Your task to perform on an android device: search for starred emails in the gmail app Image 0: 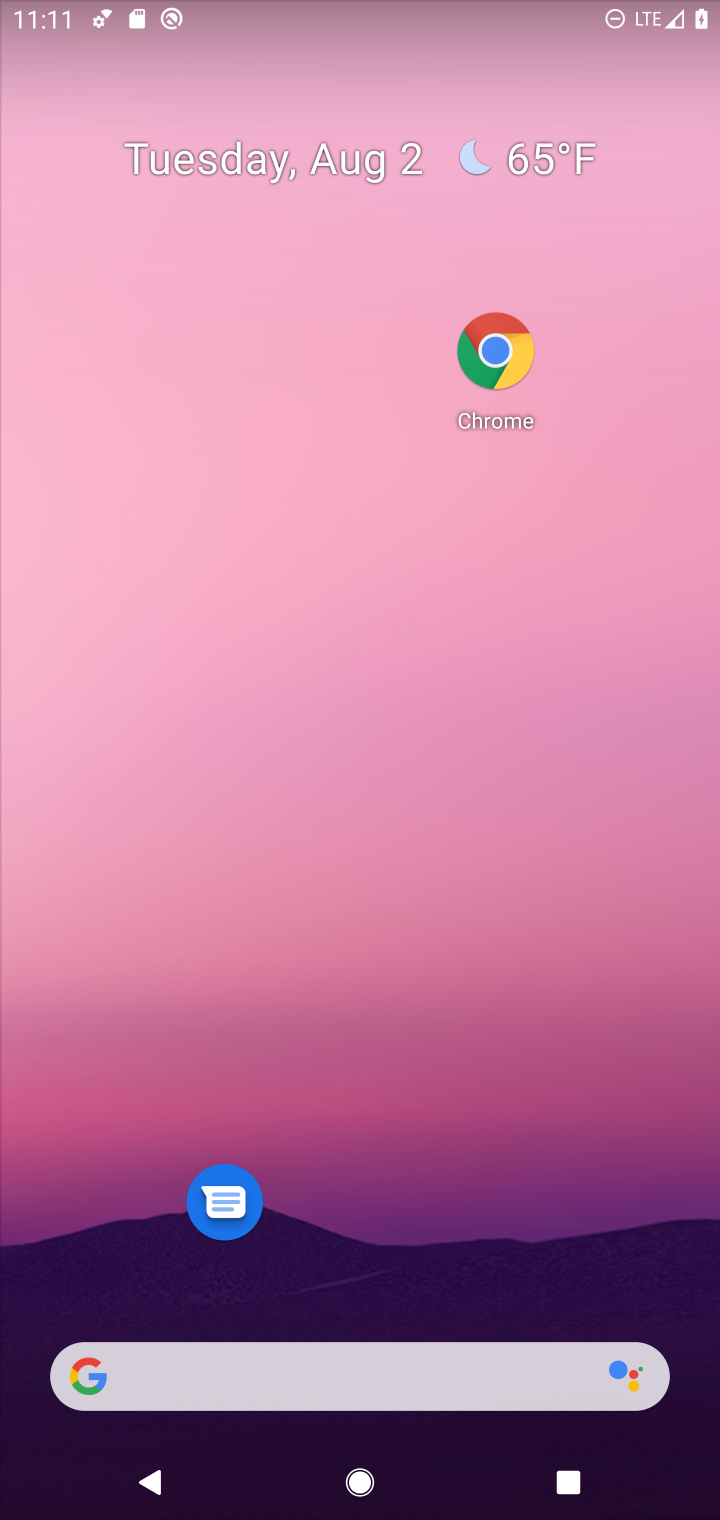
Step 0: drag from (427, 1182) to (441, 337)
Your task to perform on an android device: search for starred emails in the gmail app Image 1: 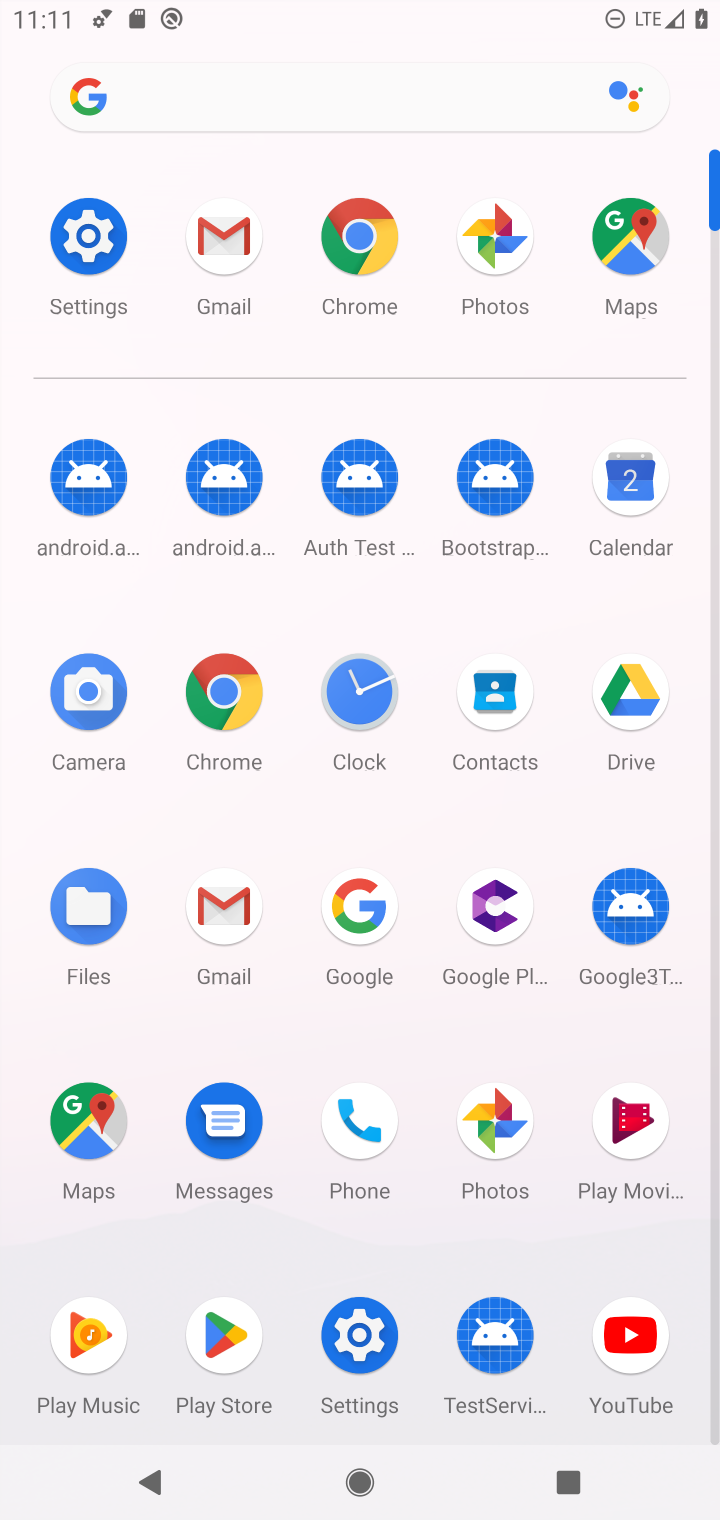
Step 1: click (218, 265)
Your task to perform on an android device: search for starred emails in the gmail app Image 2: 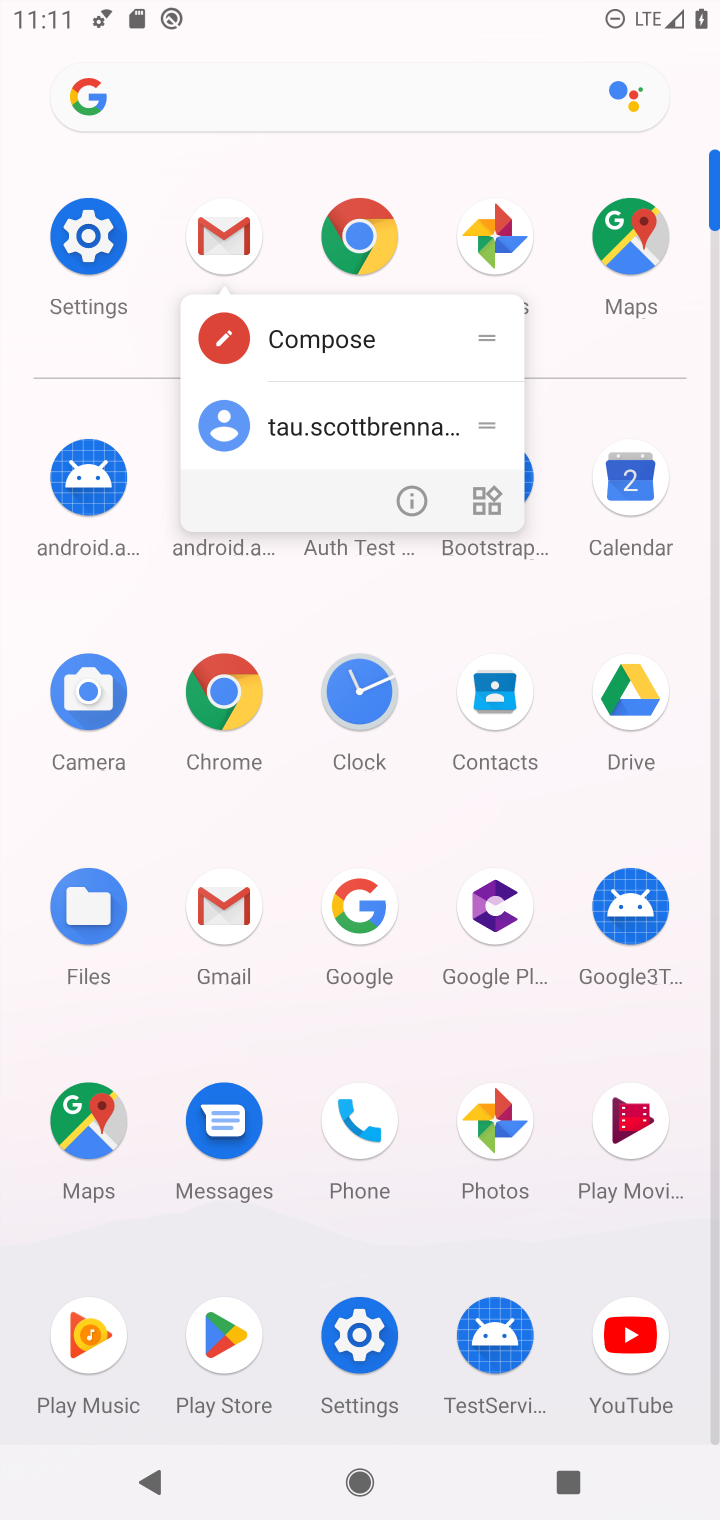
Step 2: click (226, 233)
Your task to perform on an android device: search for starred emails in the gmail app Image 3: 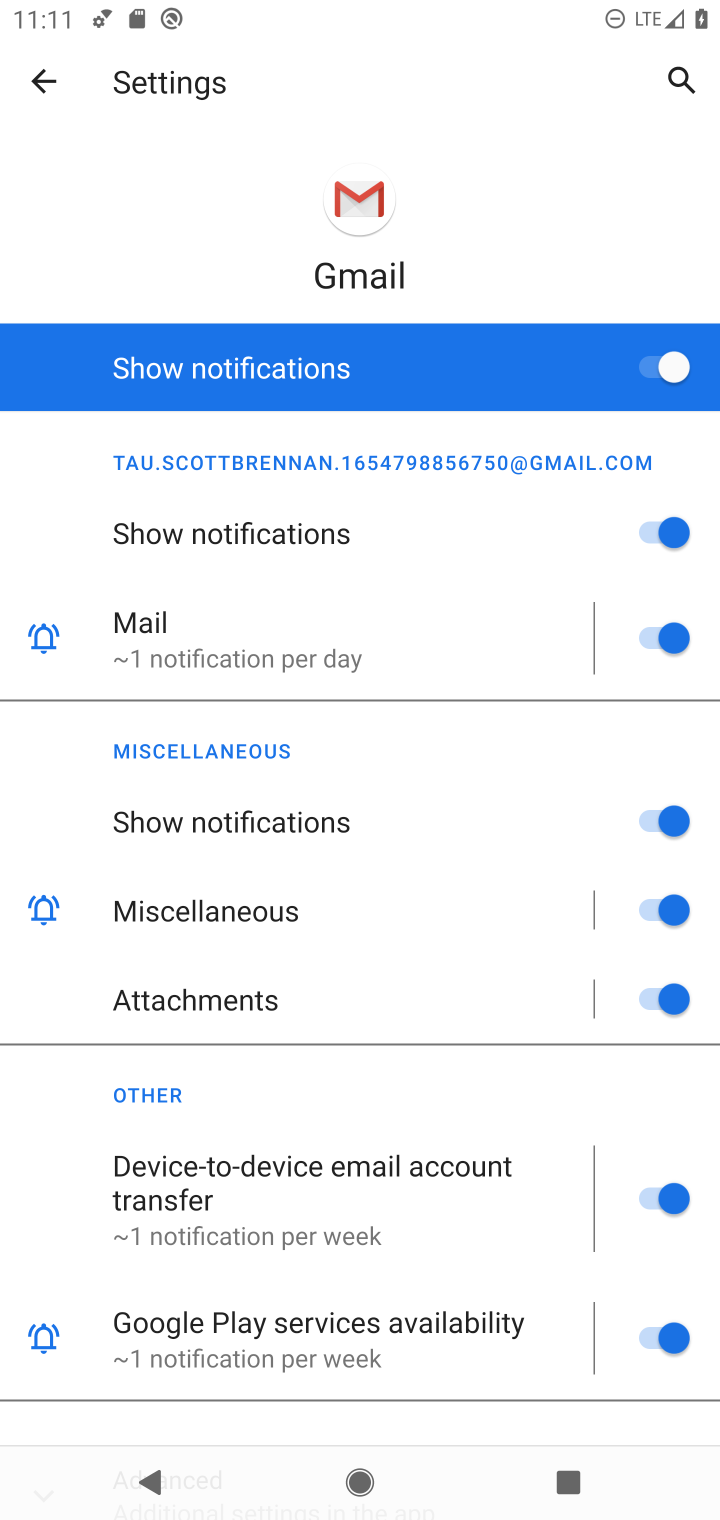
Step 3: click (30, 87)
Your task to perform on an android device: search for starred emails in the gmail app Image 4: 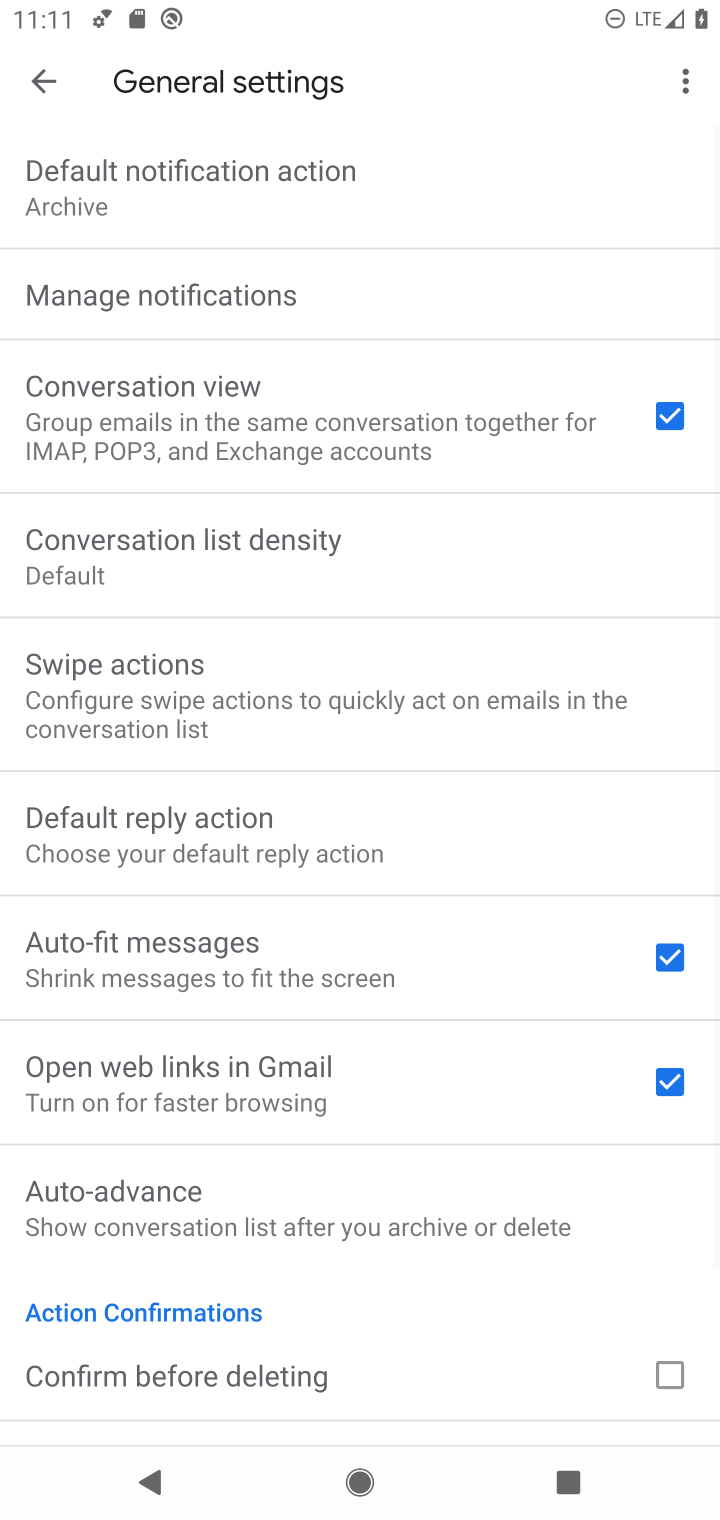
Step 4: click (30, 87)
Your task to perform on an android device: search for starred emails in the gmail app Image 5: 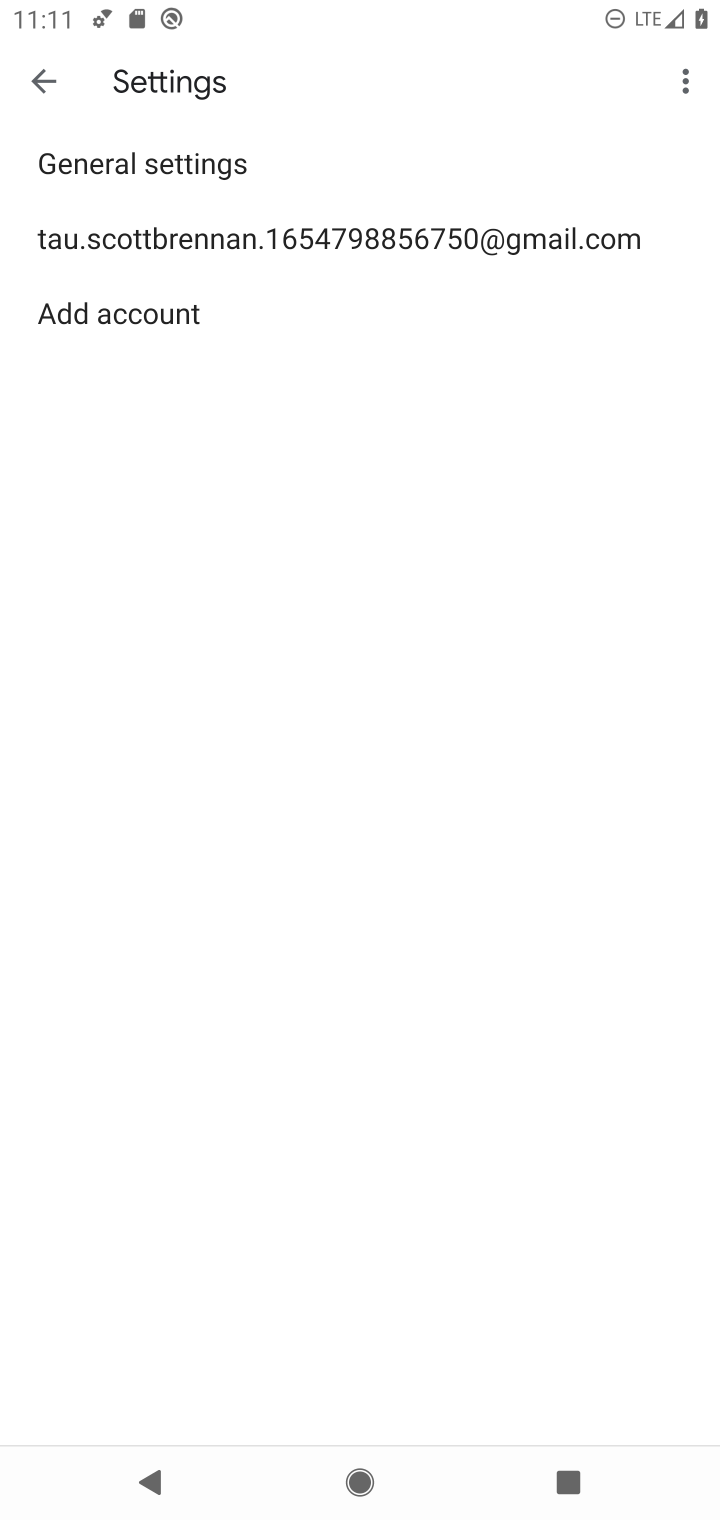
Step 5: click (37, 93)
Your task to perform on an android device: search for starred emails in the gmail app Image 6: 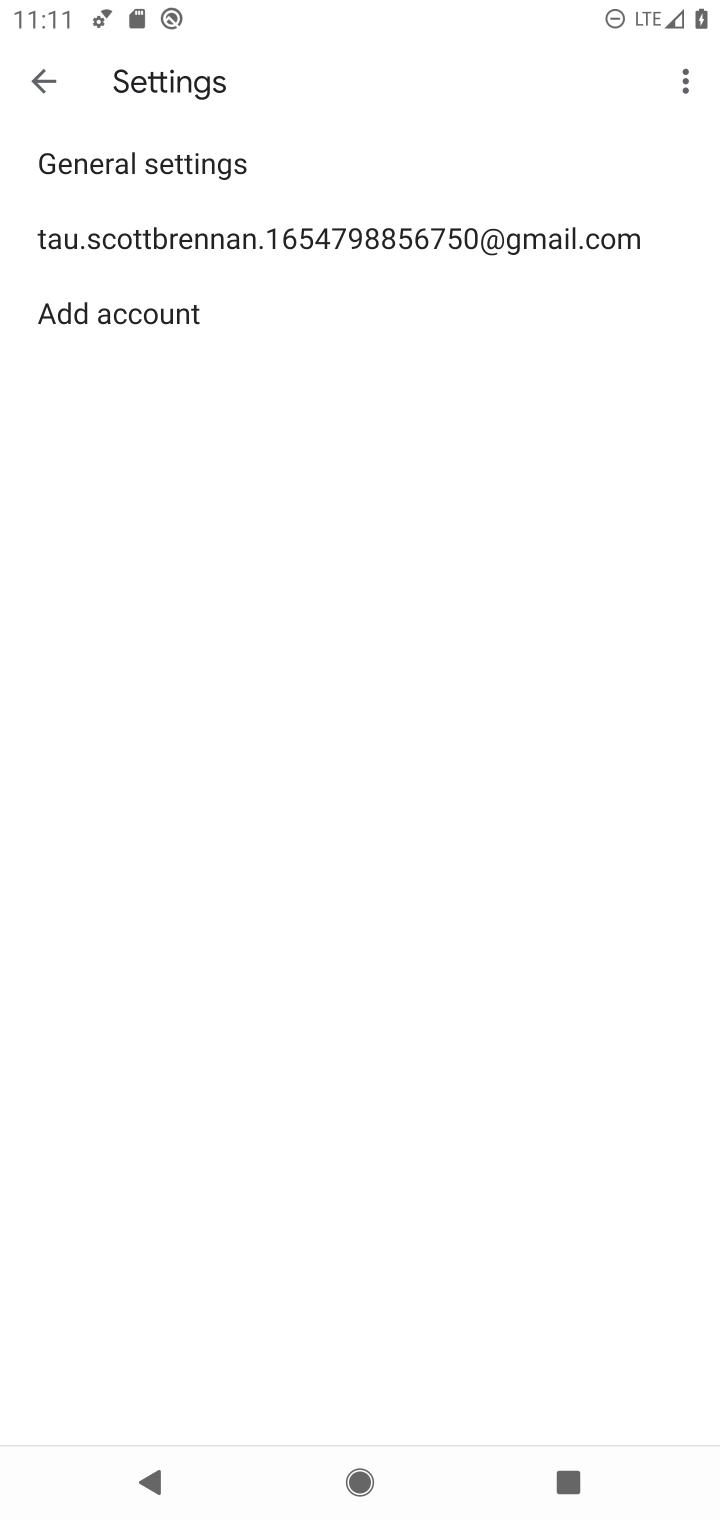
Step 6: click (41, 79)
Your task to perform on an android device: search for starred emails in the gmail app Image 7: 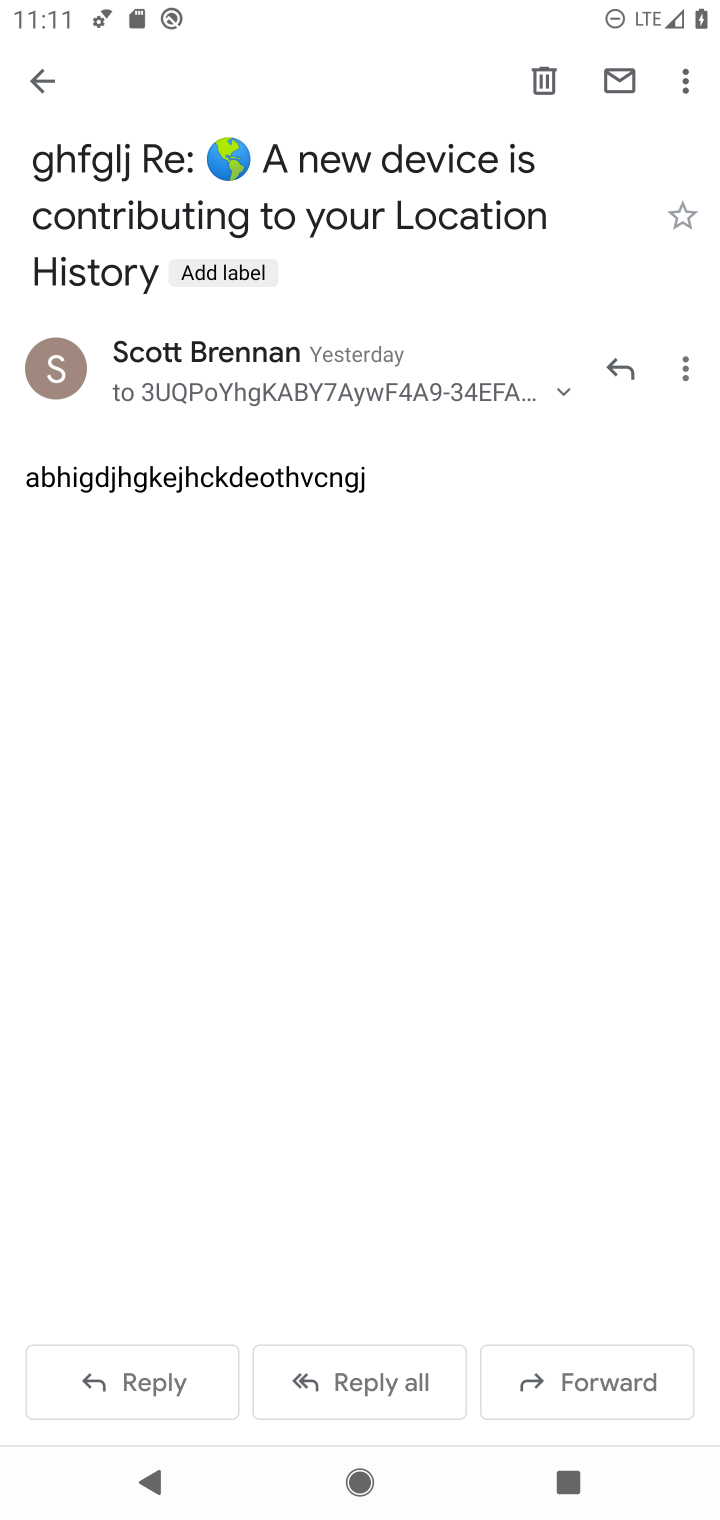
Step 7: click (53, 93)
Your task to perform on an android device: search for starred emails in the gmail app Image 8: 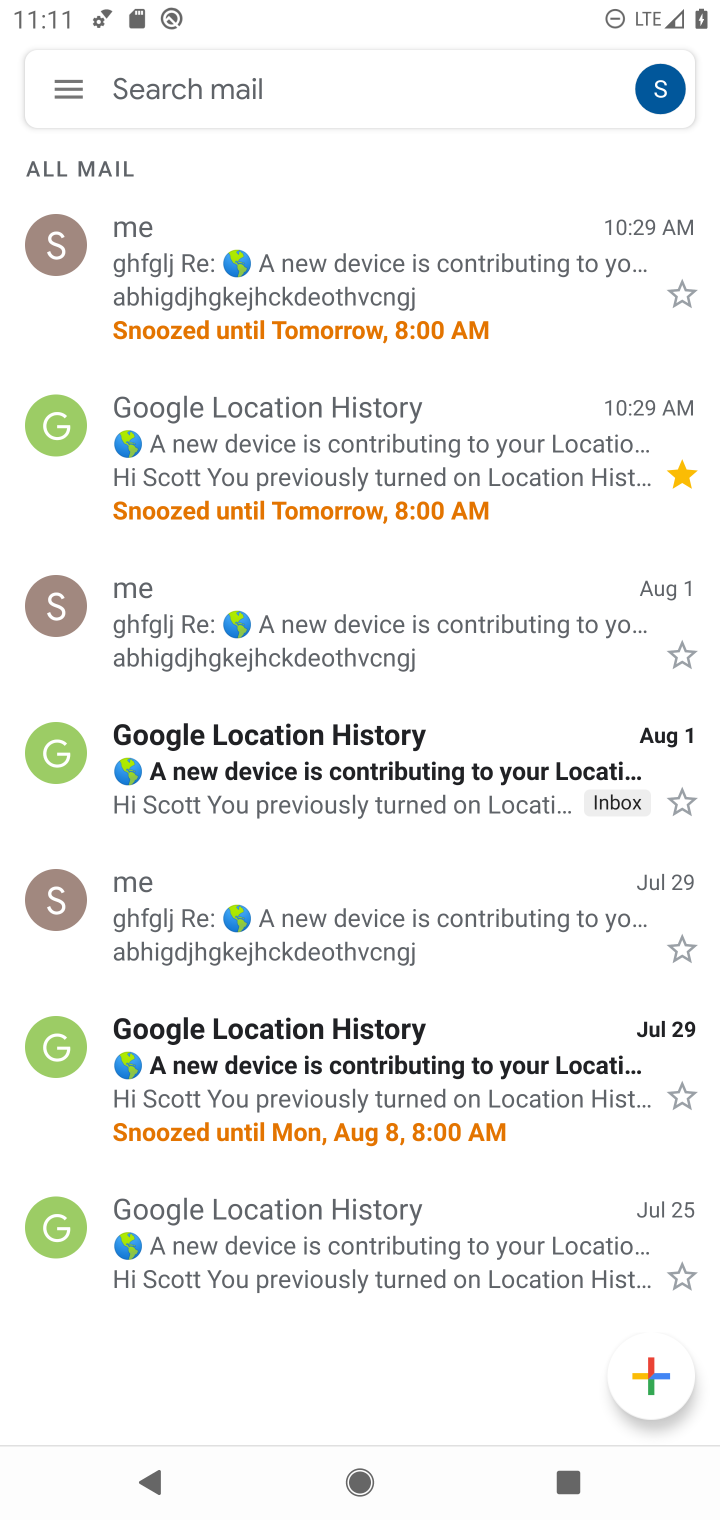
Step 8: click (53, 93)
Your task to perform on an android device: search for starred emails in the gmail app Image 9: 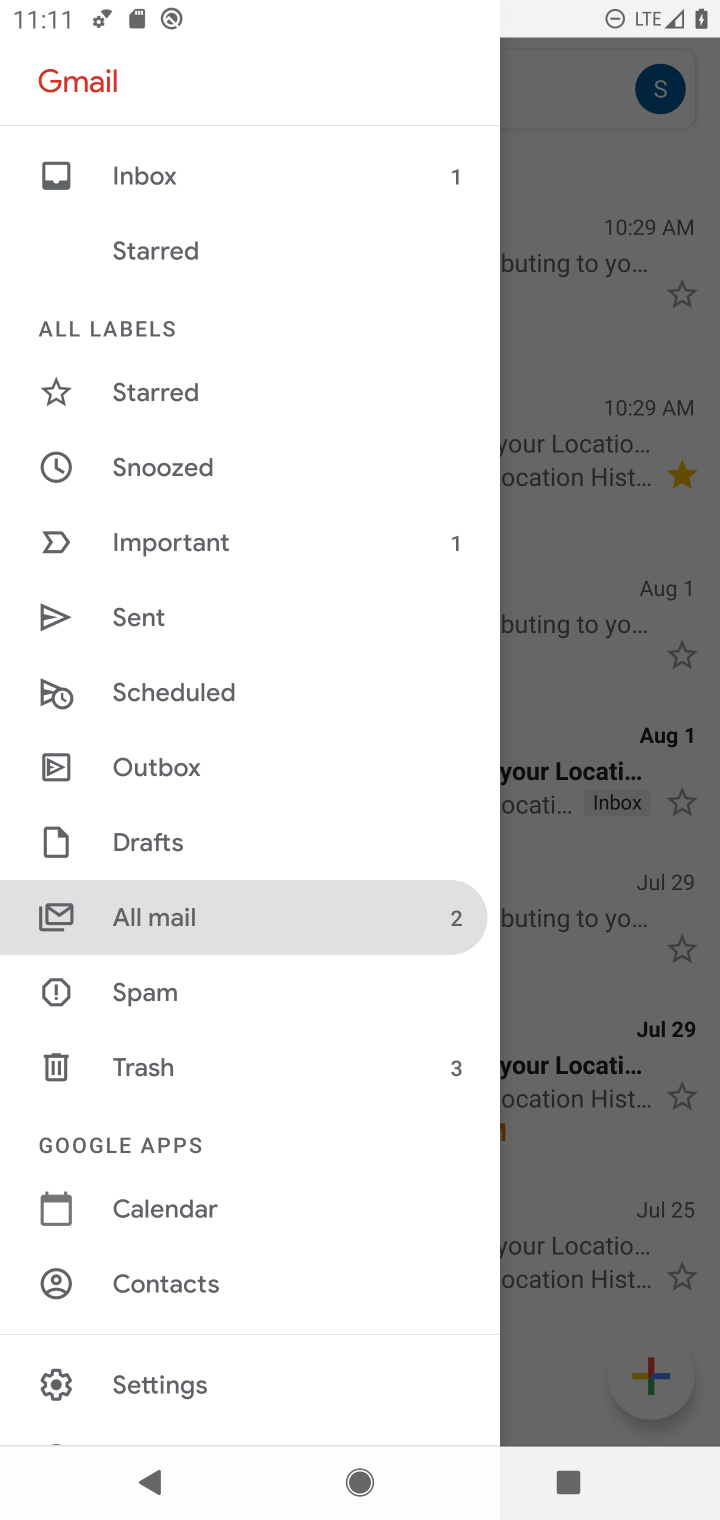
Step 9: click (160, 400)
Your task to perform on an android device: search for starred emails in the gmail app Image 10: 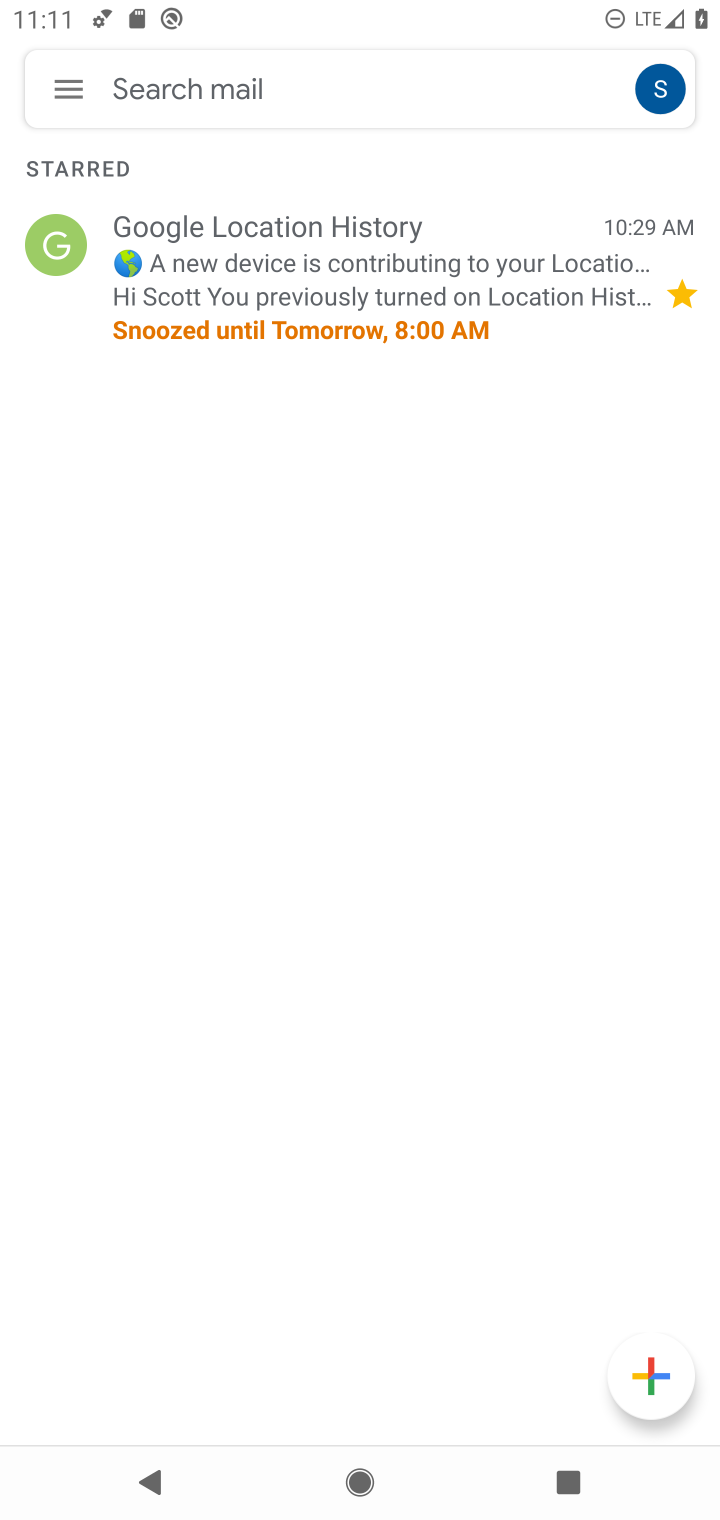
Step 10: task complete